Your task to perform on an android device: turn notification dots off Image 0: 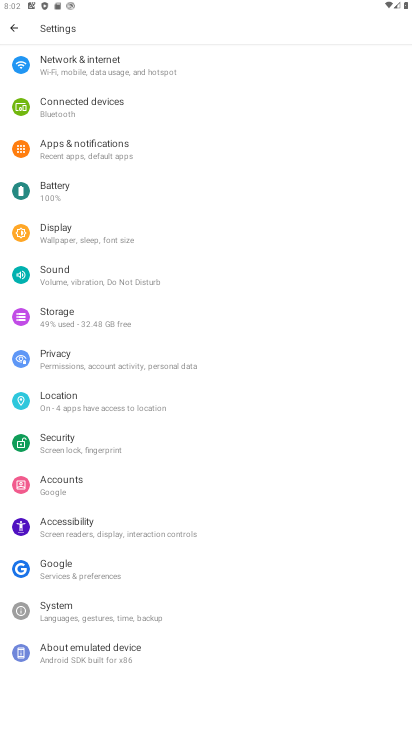
Step 0: click (83, 149)
Your task to perform on an android device: turn notification dots off Image 1: 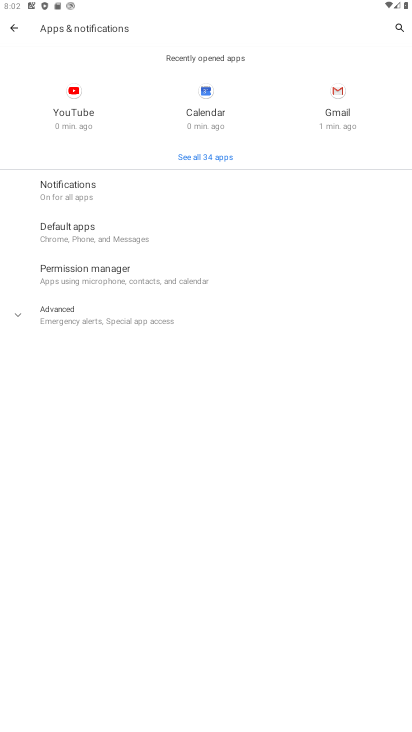
Step 1: click (57, 187)
Your task to perform on an android device: turn notification dots off Image 2: 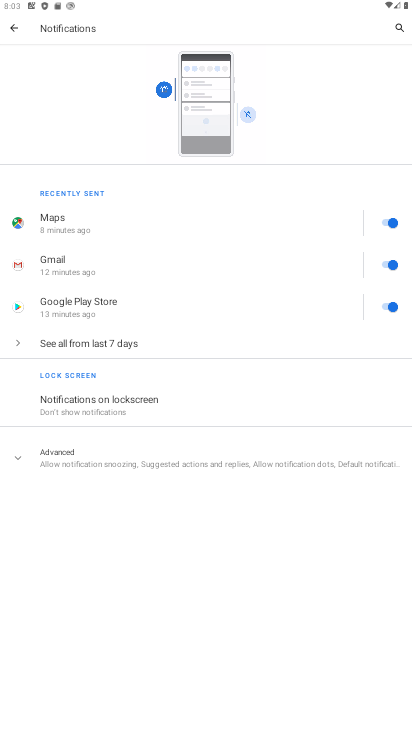
Step 2: click (101, 459)
Your task to perform on an android device: turn notification dots off Image 3: 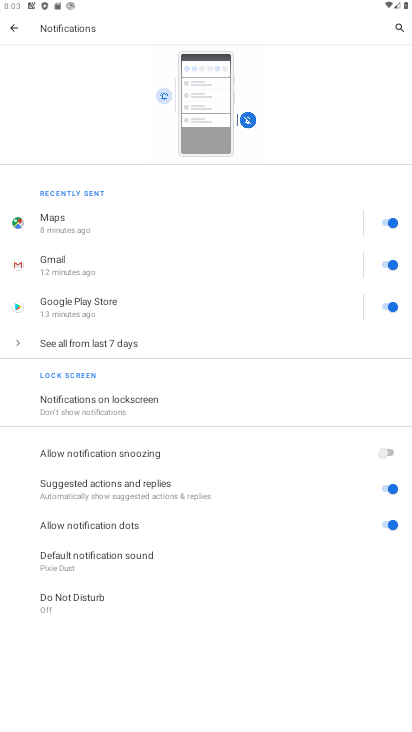
Step 3: click (389, 523)
Your task to perform on an android device: turn notification dots off Image 4: 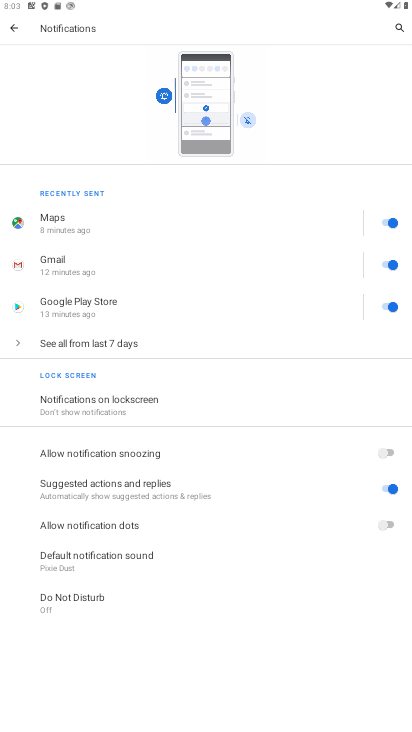
Step 4: task complete